Your task to perform on an android device: Search for vegetarian restaurants on Maps Image 0: 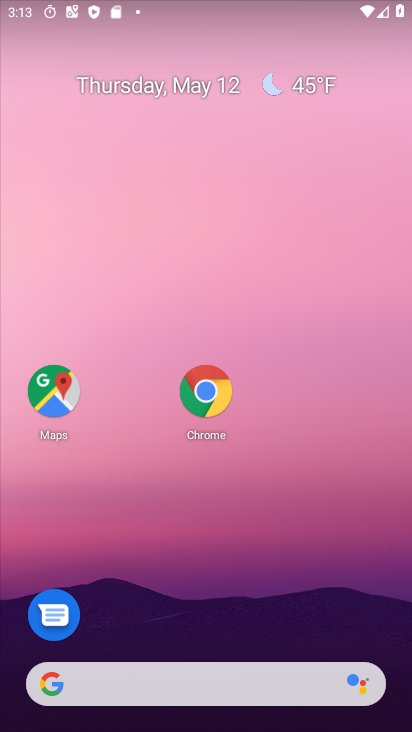
Step 0: drag from (183, 564) to (175, 164)
Your task to perform on an android device: Search for vegetarian restaurants on Maps Image 1: 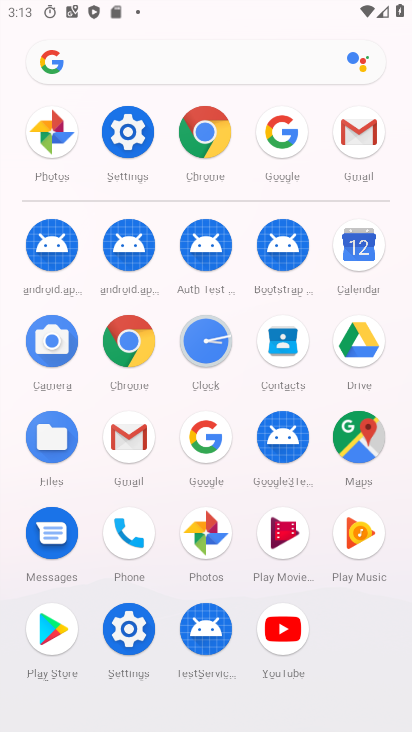
Step 1: click (359, 437)
Your task to perform on an android device: Search for vegetarian restaurants on Maps Image 2: 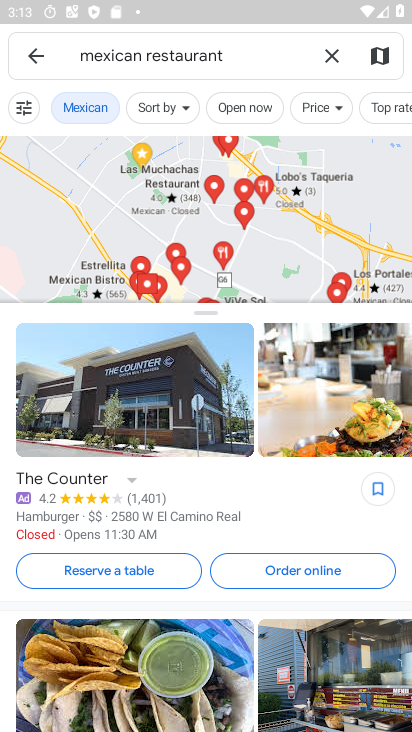
Step 2: click (341, 54)
Your task to perform on an android device: Search for vegetarian restaurants on Maps Image 3: 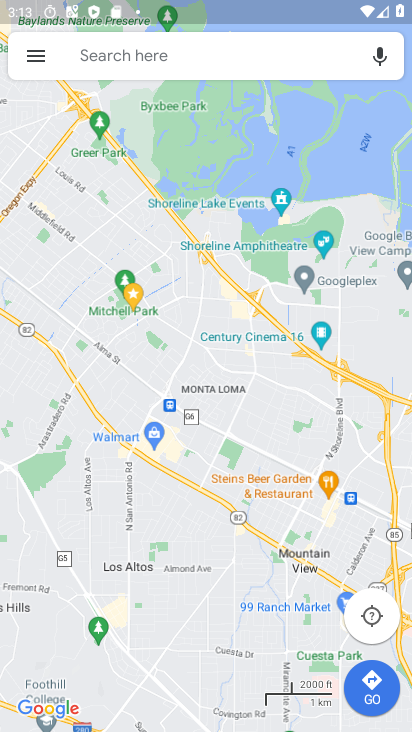
Step 3: click (111, 57)
Your task to perform on an android device: Search for vegetarian restaurants on Maps Image 4: 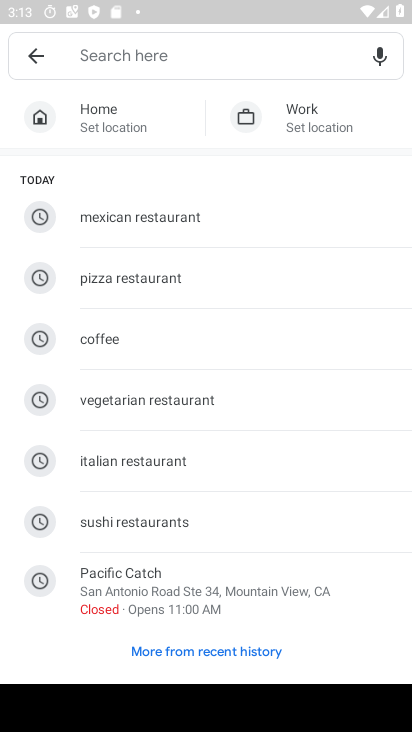
Step 4: click (140, 405)
Your task to perform on an android device: Search for vegetarian restaurants on Maps Image 5: 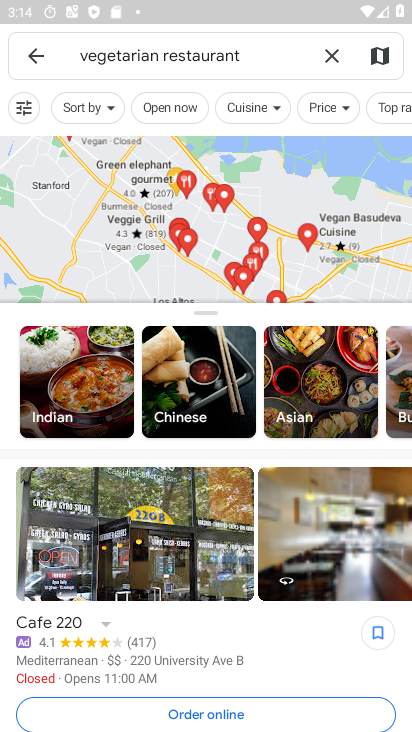
Step 5: task complete